Your task to perform on an android device: turn off sleep mode Image 0: 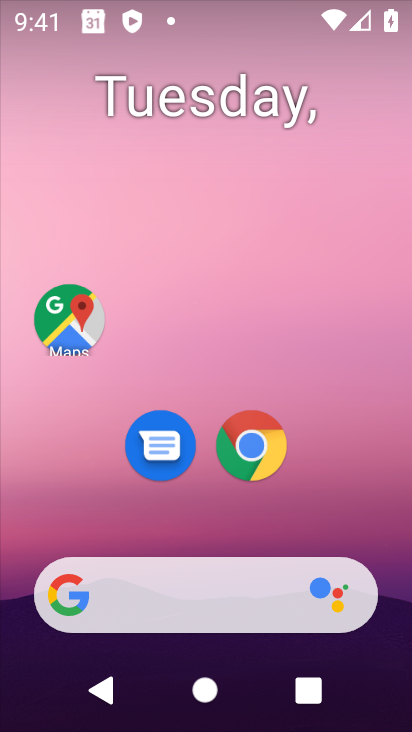
Step 0: drag from (211, 518) to (221, 51)
Your task to perform on an android device: turn off sleep mode Image 1: 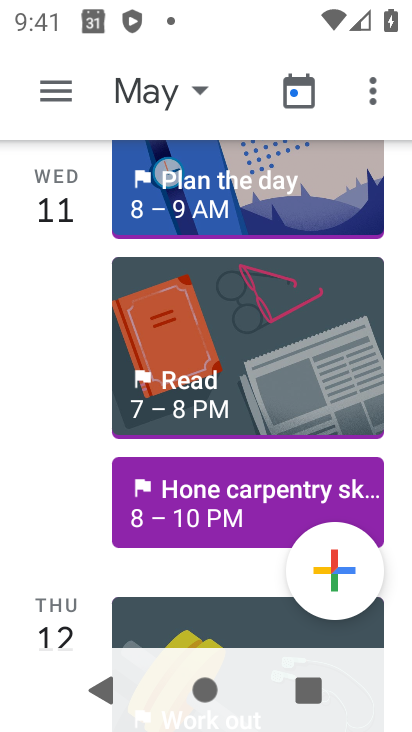
Step 1: press home button
Your task to perform on an android device: turn off sleep mode Image 2: 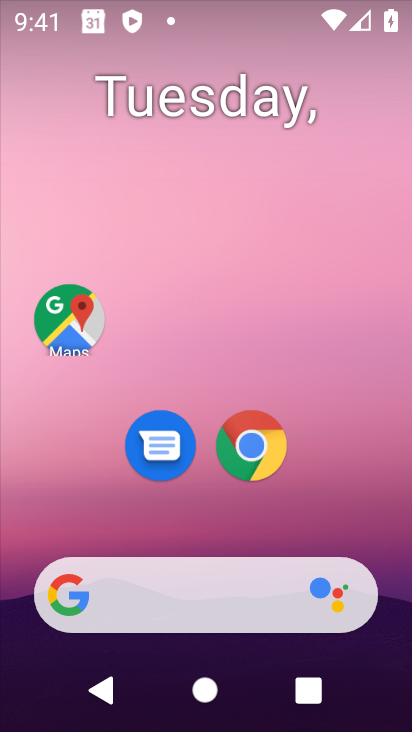
Step 2: drag from (212, 525) to (210, 111)
Your task to perform on an android device: turn off sleep mode Image 3: 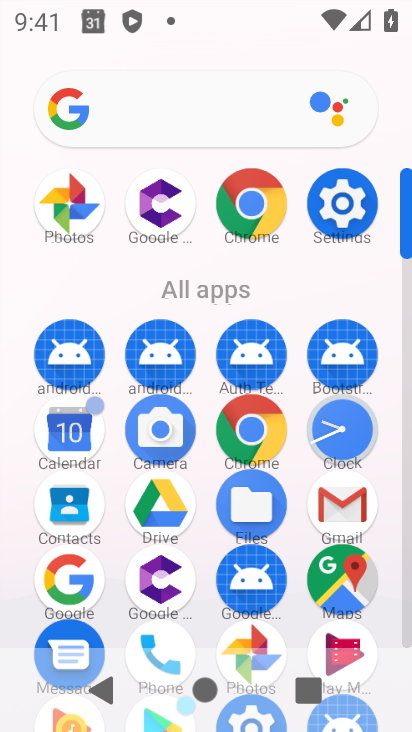
Step 3: click (346, 198)
Your task to perform on an android device: turn off sleep mode Image 4: 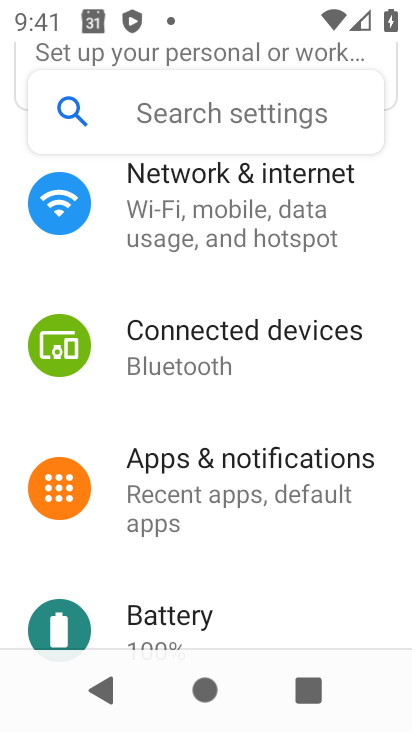
Step 4: drag from (212, 598) to (212, 172)
Your task to perform on an android device: turn off sleep mode Image 5: 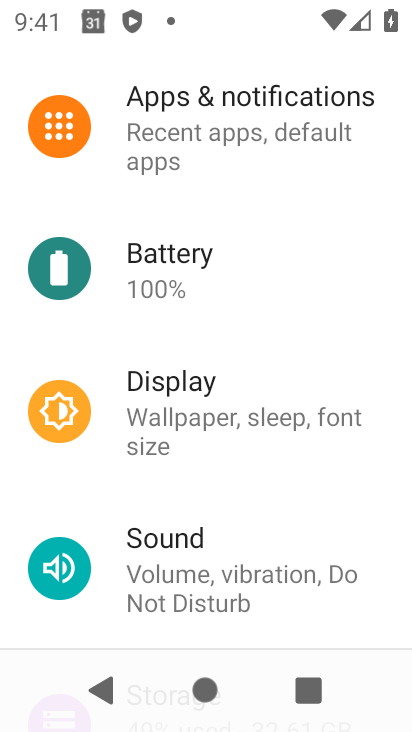
Step 5: click (176, 417)
Your task to perform on an android device: turn off sleep mode Image 6: 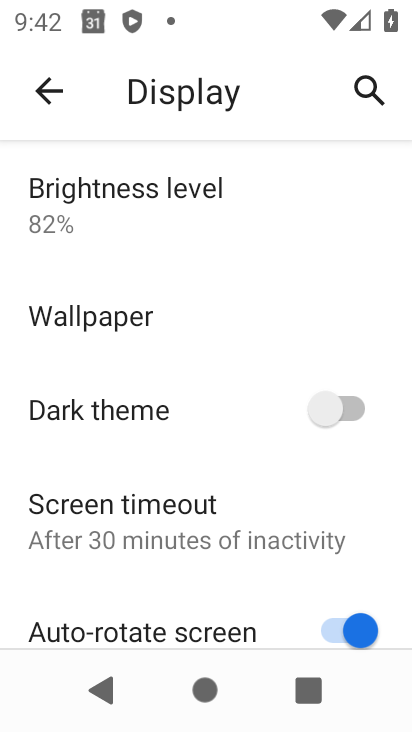
Step 6: task complete